Your task to perform on an android device: open the mobile data screen to see how much data has been used Image 0: 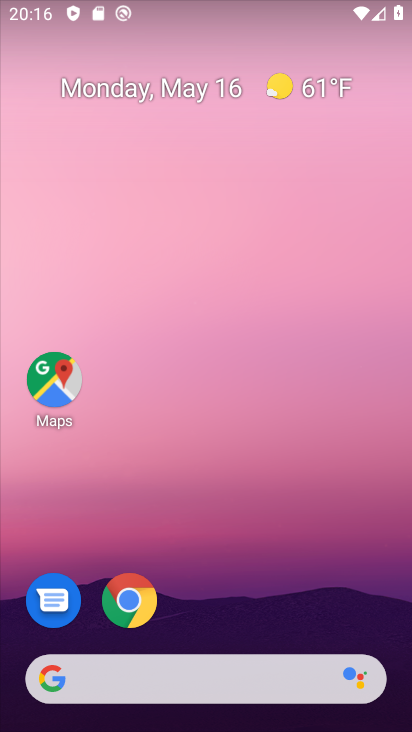
Step 0: drag from (210, 646) to (269, 273)
Your task to perform on an android device: open the mobile data screen to see how much data has been used Image 1: 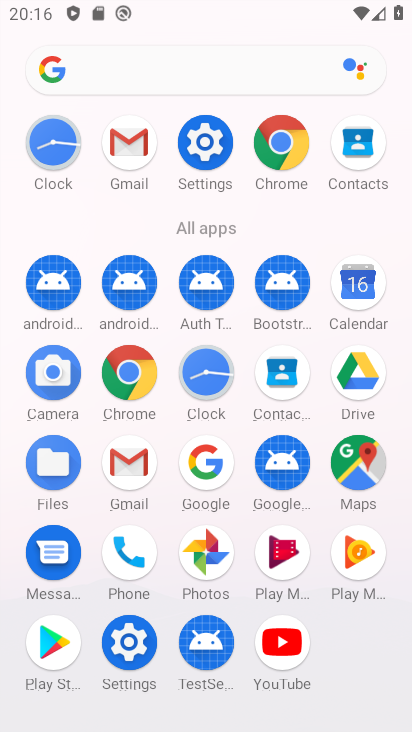
Step 1: click (142, 644)
Your task to perform on an android device: open the mobile data screen to see how much data has been used Image 2: 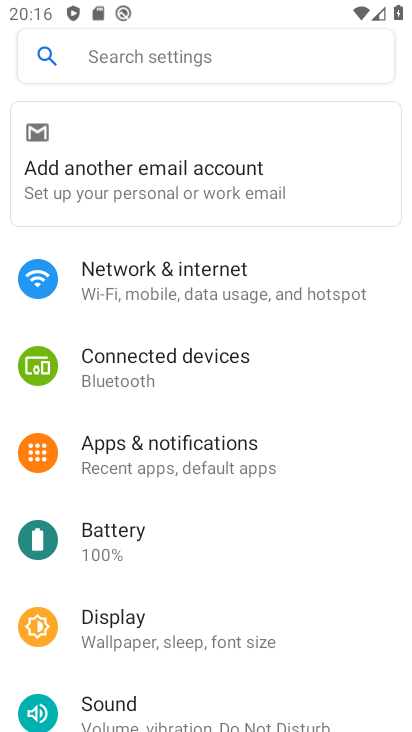
Step 2: click (194, 278)
Your task to perform on an android device: open the mobile data screen to see how much data has been used Image 3: 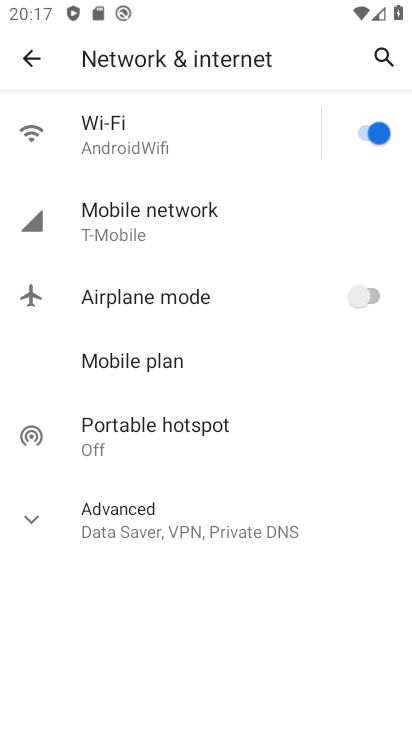
Step 3: click (198, 229)
Your task to perform on an android device: open the mobile data screen to see how much data has been used Image 4: 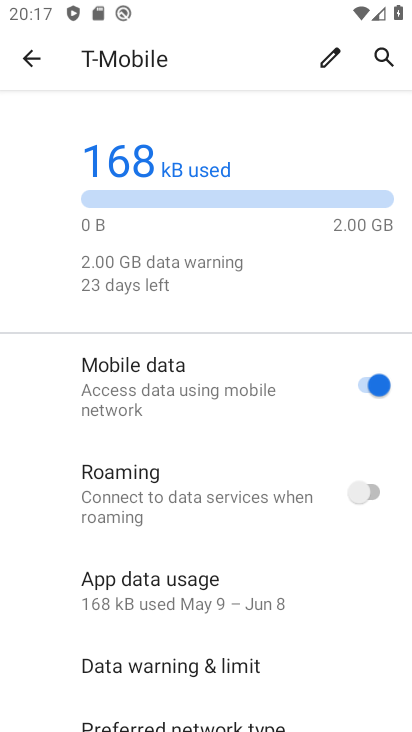
Step 4: task complete